Your task to perform on an android device: Open the map Image 0: 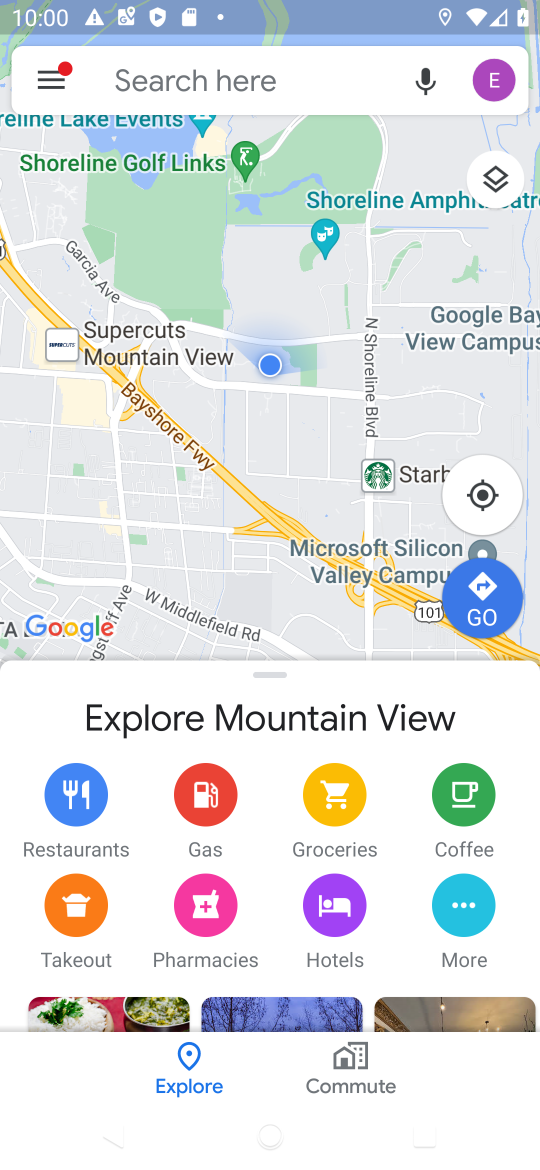
Step 0: task complete